Your task to perform on an android device: turn off picture-in-picture Image 0: 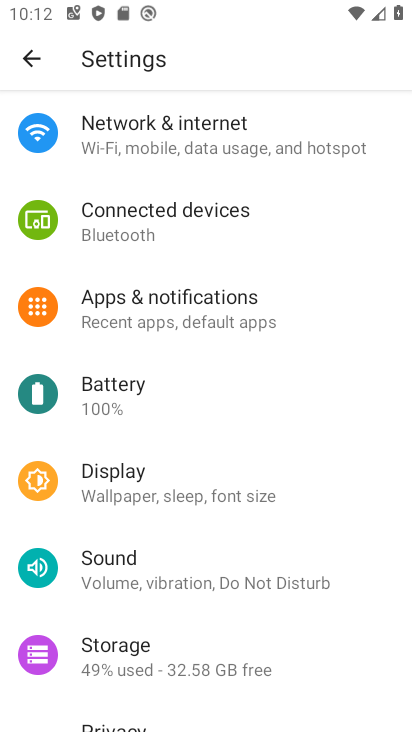
Step 0: click (207, 296)
Your task to perform on an android device: turn off picture-in-picture Image 1: 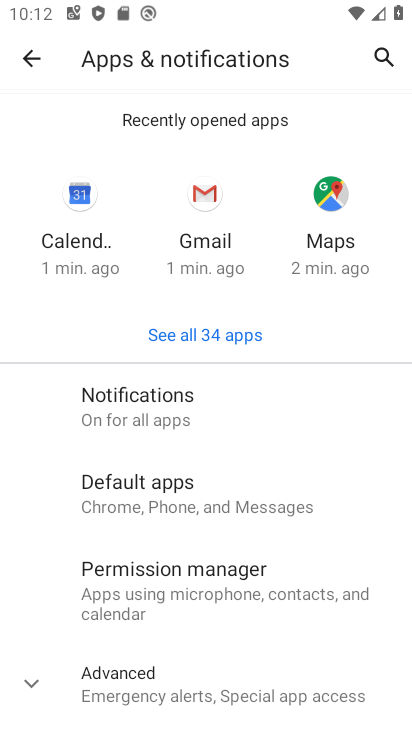
Step 1: click (184, 678)
Your task to perform on an android device: turn off picture-in-picture Image 2: 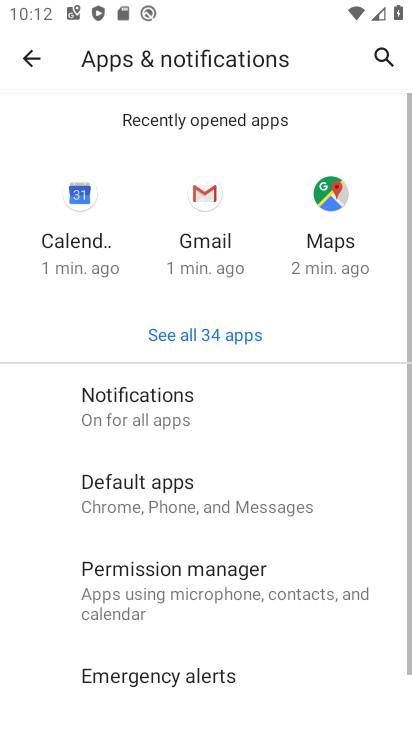
Step 2: drag from (323, 605) to (315, 261)
Your task to perform on an android device: turn off picture-in-picture Image 3: 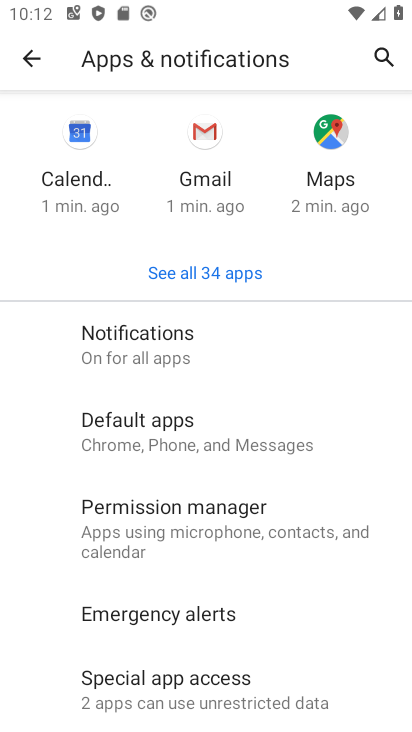
Step 3: click (203, 675)
Your task to perform on an android device: turn off picture-in-picture Image 4: 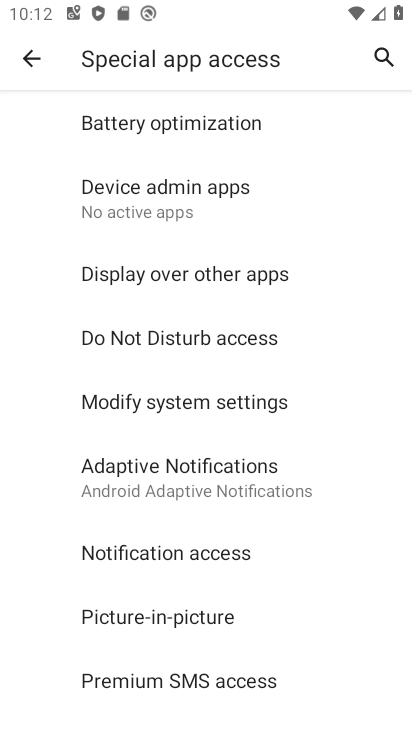
Step 4: click (197, 624)
Your task to perform on an android device: turn off picture-in-picture Image 5: 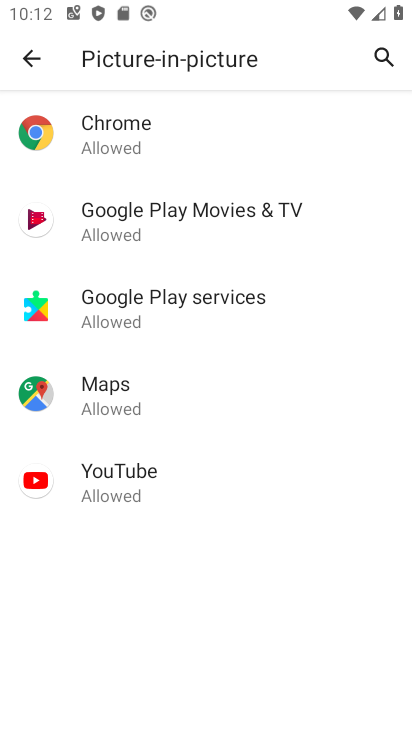
Step 5: click (144, 138)
Your task to perform on an android device: turn off picture-in-picture Image 6: 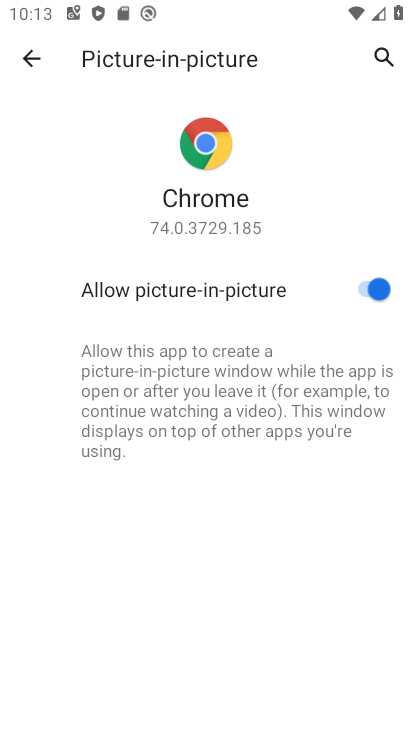
Step 6: click (384, 286)
Your task to perform on an android device: turn off picture-in-picture Image 7: 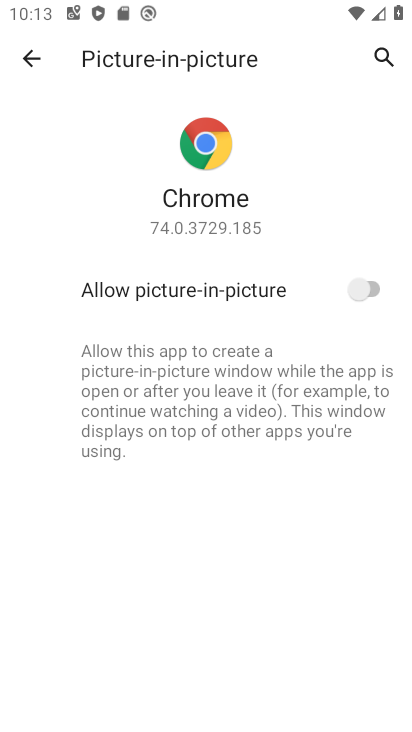
Step 7: click (42, 55)
Your task to perform on an android device: turn off picture-in-picture Image 8: 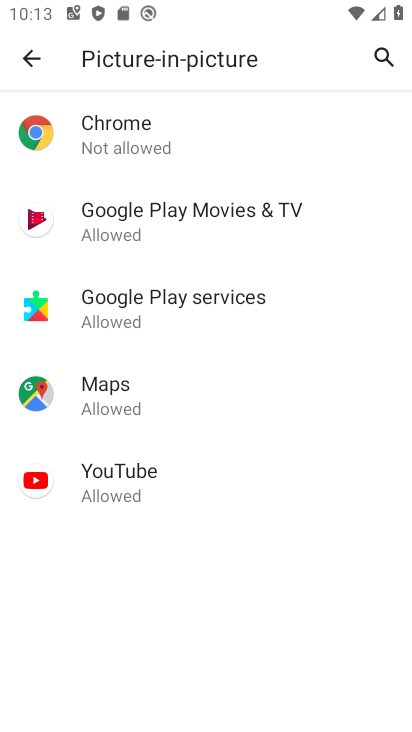
Step 8: click (139, 229)
Your task to perform on an android device: turn off picture-in-picture Image 9: 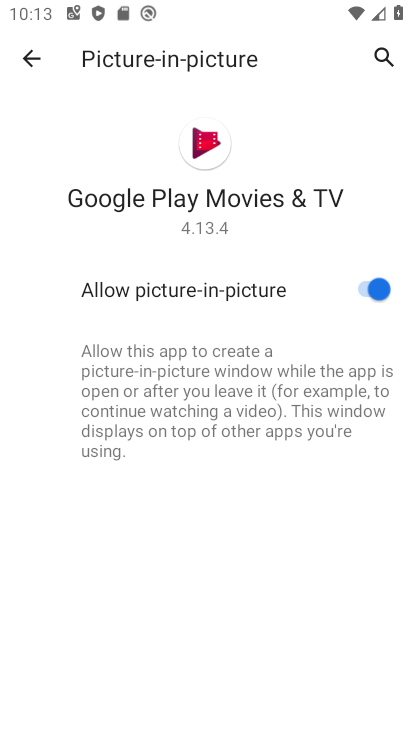
Step 9: click (372, 288)
Your task to perform on an android device: turn off picture-in-picture Image 10: 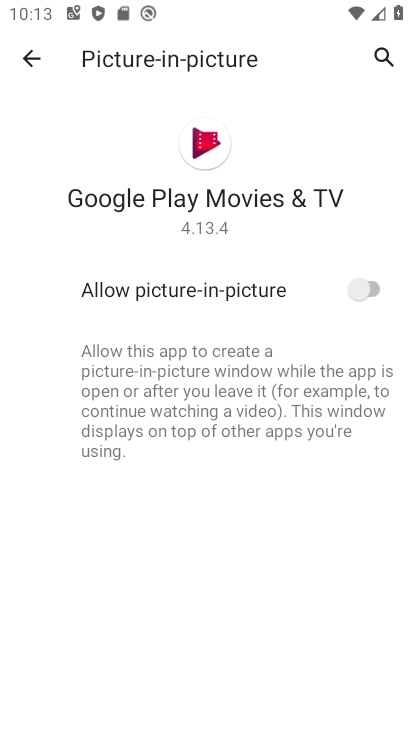
Step 10: click (45, 49)
Your task to perform on an android device: turn off picture-in-picture Image 11: 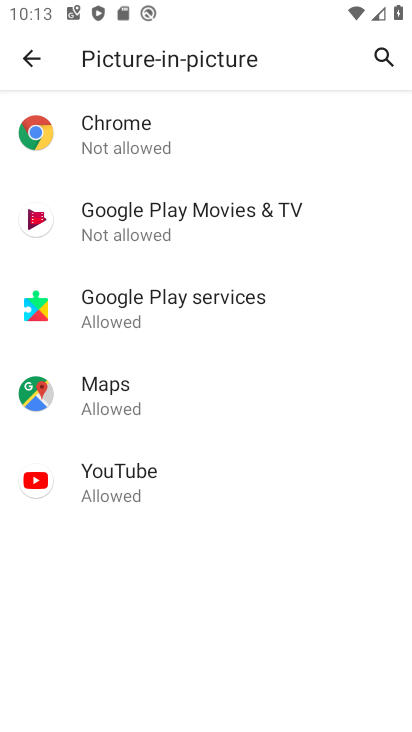
Step 11: click (169, 334)
Your task to perform on an android device: turn off picture-in-picture Image 12: 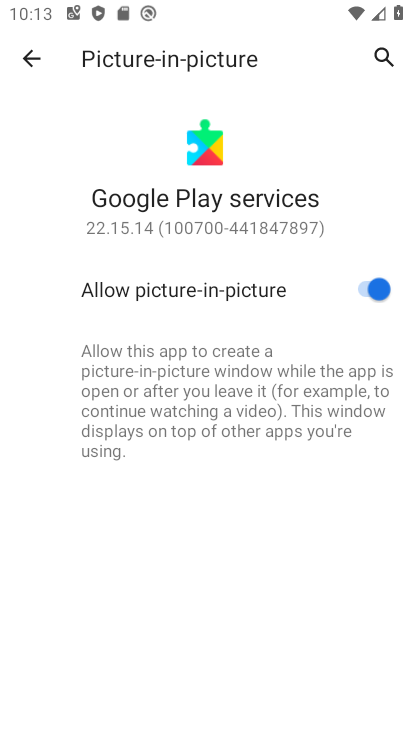
Step 12: click (376, 283)
Your task to perform on an android device: turn off picture-in-picture Image 13: 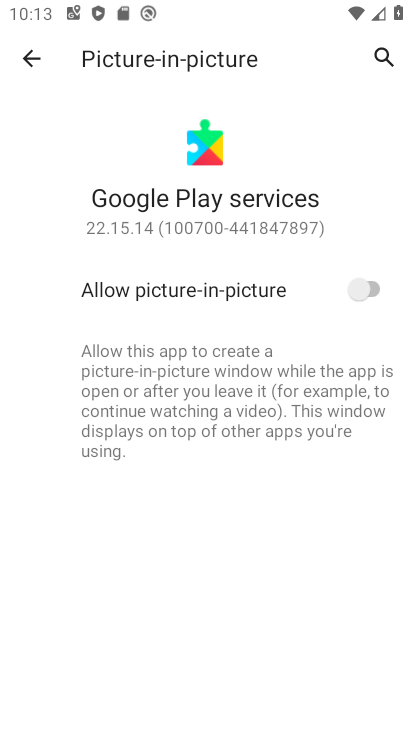
Step 13: click (28, 54)
Your task to perform on an android device: turn off picture-in-picture Image 14: 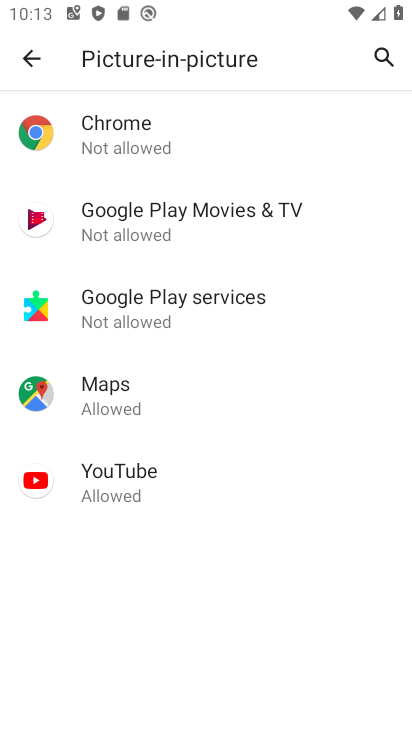
Step 14: click (140, 395)
Your task to perform on an android device: turn off picture-in-picture Image 15: 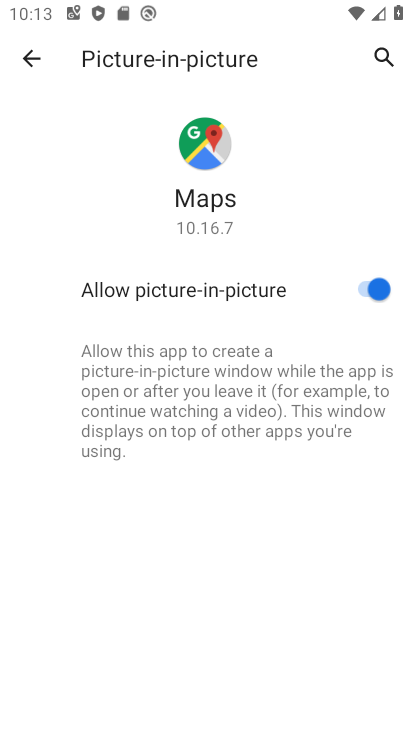
Step 15: click (370, 307)
Your task to perform on an android device: turn off picture-in-picture Image 16: 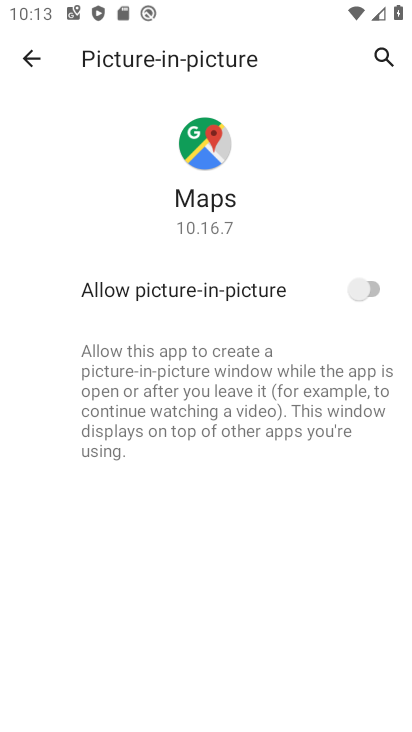
Step 16: click (40, 53)
Your task to perform on an android device: turn off picture-in-picture Image 17: 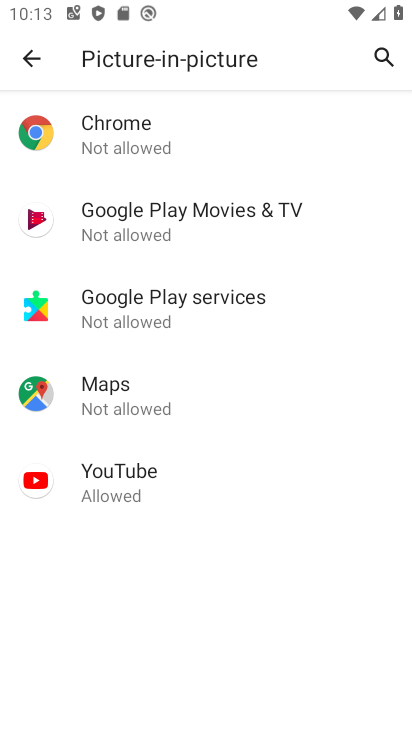
Step 17: click (108, 488)
Your task to perform on an android device: turn off picture-in-picture Image 18: 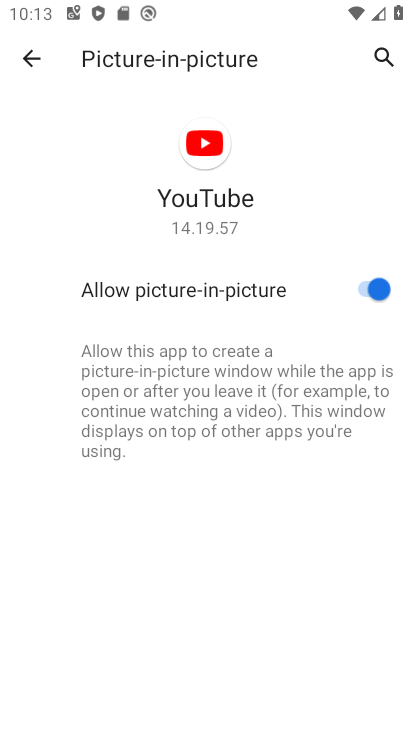
Step 18: click (369, 278)
Your task to perform on an android device: turn off picture-in-picture Image 19: 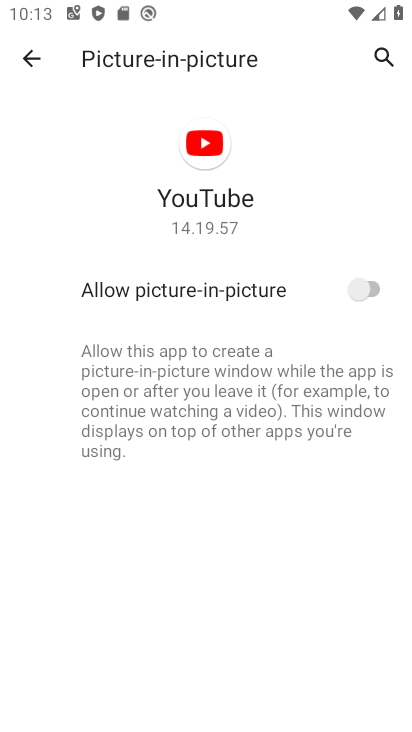
Step 19: click (26, 50)
Your task to perform on an android device: turn off picture-in-picture Image 20: 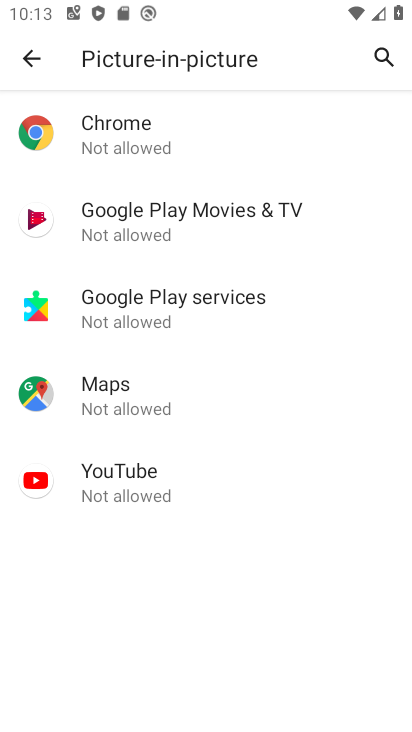
Step 20: task complete